Your task to perform on an android device: turn on improve location accuracy Image 0: 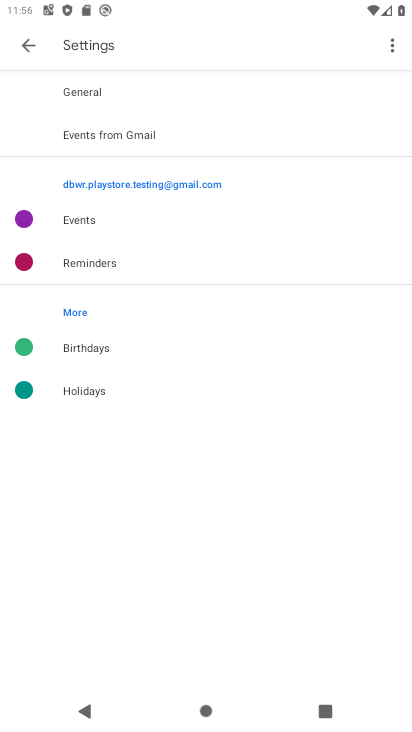
Step 0: press back button
Your task to perform on an android device: turn on improve location accuracy Image 1: 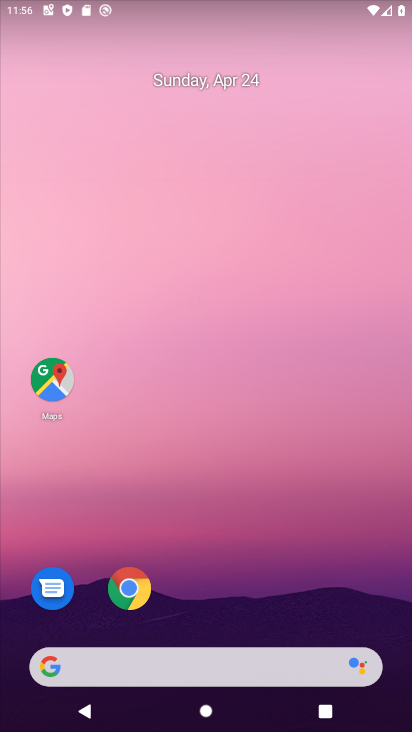
Step 1: drag from (184, 634) to (283, 94)
Your task to perform on an android device: turn on improve location accuracy Image 2: 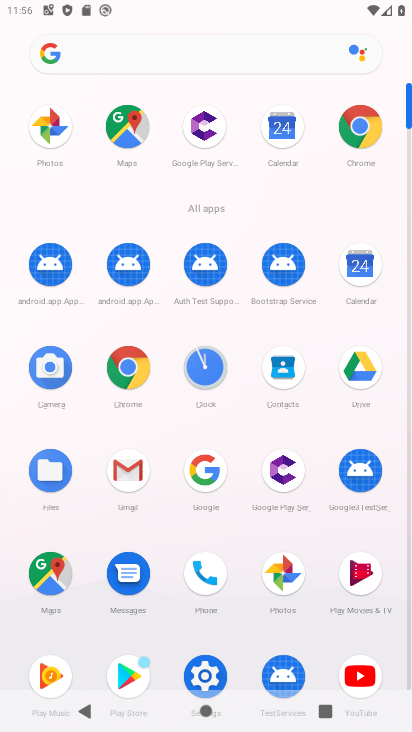
Step 2: click (208, 679)
Your task to perform on an android device: turn on improve location accuracy Image 3: 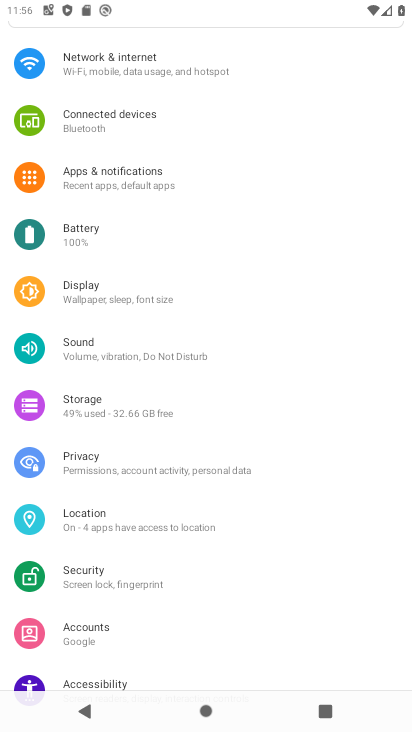
Step 3: click (130, 531)
Your task to perform on an android device: turn on improve location accuracy Image 4: 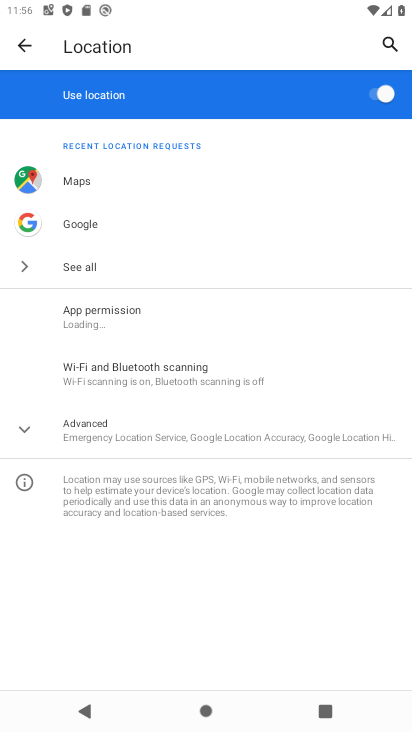
Step 4: click (180, 439)
Your task to perform on an android device: turn on improve location accuracy Image 5: 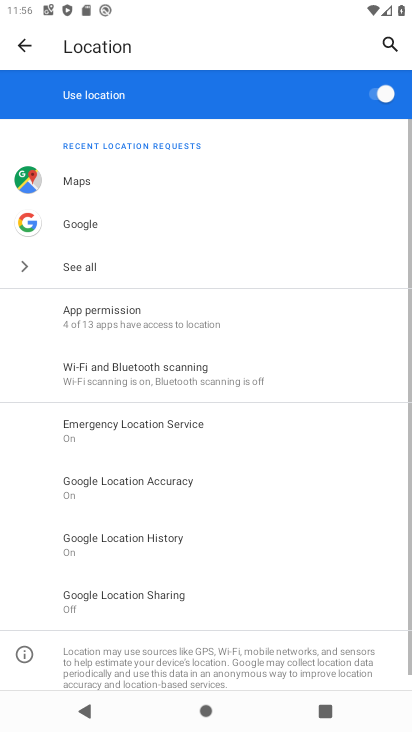
Step 5: click (204, 493)
Your task to perform on an android device: turn on improve location accuracy Image 6: 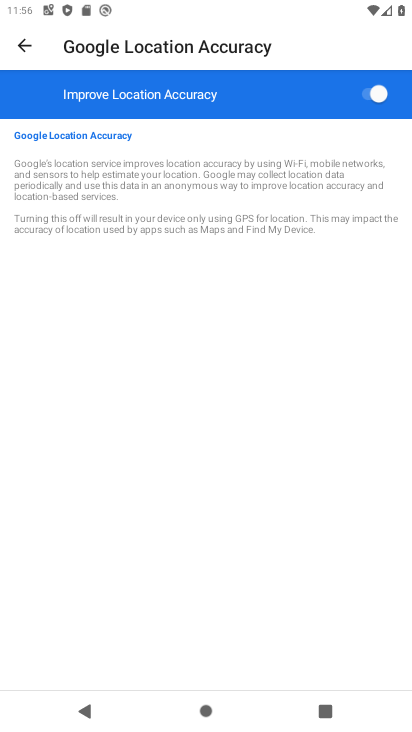
Step 6: task complete